Your task to perform on an android device: Clear all items from cart on bestbuy. Search for "acer predator" on bestbuy, select the first entry, add it to the cart, then select checkout. Image 0: 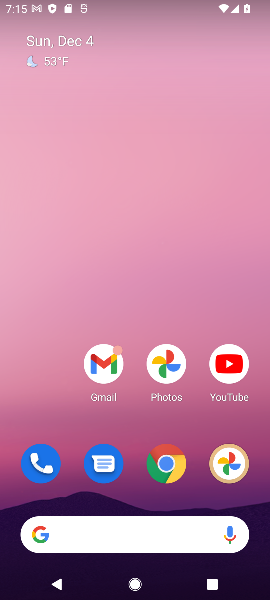
Step 0: click (176, 532)
Your task to perform on an android device: Clear all items from cart on bestbuy. Search for "acer predator" on bestbuy, select the first entry, add it to the cart, then select checkout. Image 1: 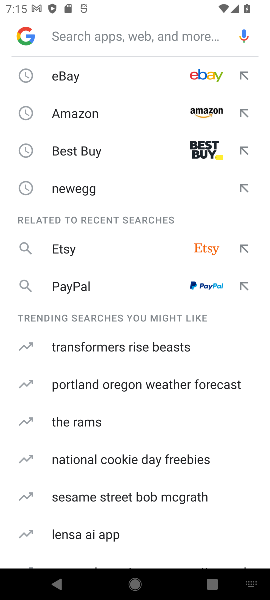
Step 1: type "bestbuy"
Your task to perform on an android device: Clear all items from cart on bestbuy. Search for "acer predator" on bestbuy, select the first entry, add it to the cart, then select checkout. Image 2: 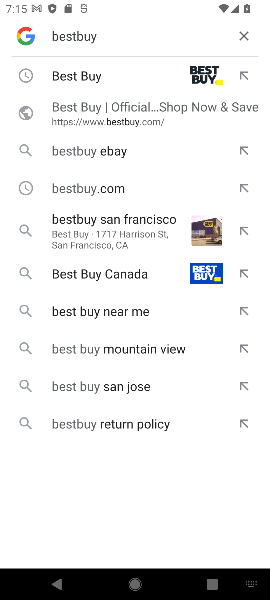
Step 2: click (74, 69)
Your task to perform on an android device: Clear all items from cart on bestbuy. Search for "acer predator" on bestbuy, select the first entry, add it to the cart, then select checkout. Image 3: 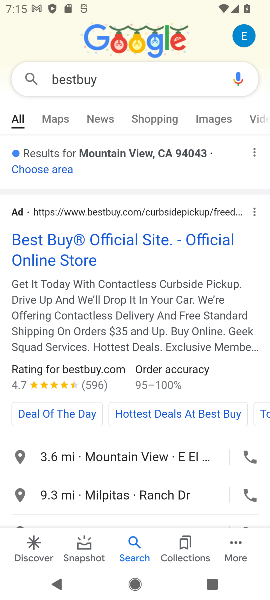
Step 3: click (75, 247)
Your task to perform on an android device: Clear all items from cart on bestbuy. Search for "acer predator" on bestbuy, select the first entry, add it to the cart, then select checkout. Image 4: 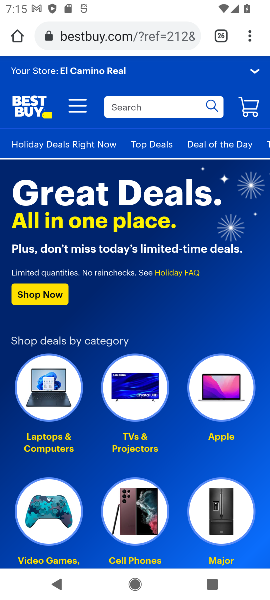
Step 4: click (136, 105)
Your task to perform on an android device: Clear all items from cart on bestbuy. Search for "acer predator" on bestbuy, select the first entry, add it to the cart, then select checkout. Image 5: 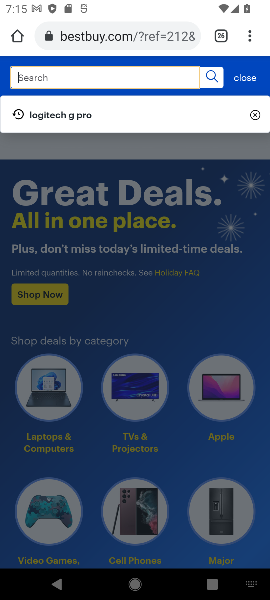
Step 5: type "acer predator"
Your task to perform on an android device: Clear all items from cart on bestbuy. Search for "acer predator" on bestbuy, select the first entry, add it to the cart, then select checkout. Image 6: 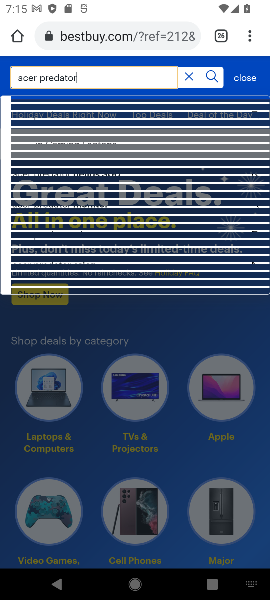
Step 6: click (26, 117)
Your task to perform on an android device: Clear all items from cart on bestbuy. Search for "acer predator" on bestbuy, select the first entry, add it to the cart, then select checkout. Image 7: 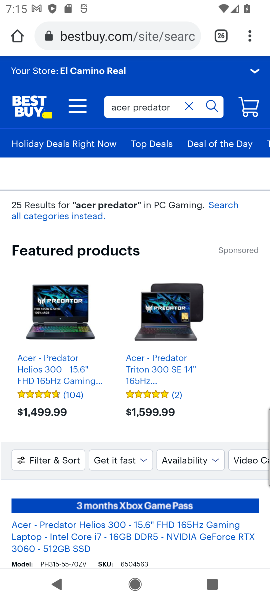
Step 7: click (62, 383)
Your task to perform on an android device: Clear all items from cart on bestbuy. Search for "acer predator" on bestbuy, select the first entry, add it to the cart, then select checkout. Image 8: 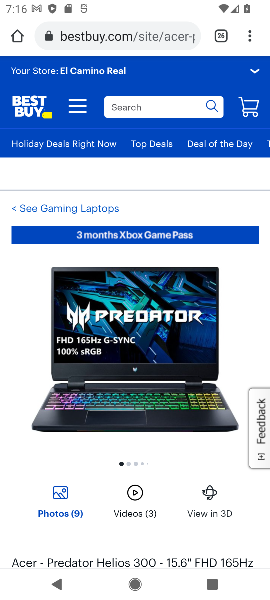
Step 8: task complete